Your task to perform on an android device: Go to ESPN.com Image 0: 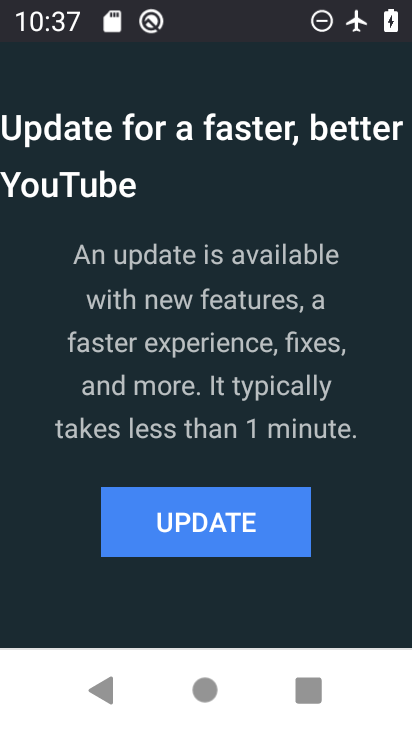
Step 0: press home button
Your task to perform on an android device: Go to ESPN.com Image 1: 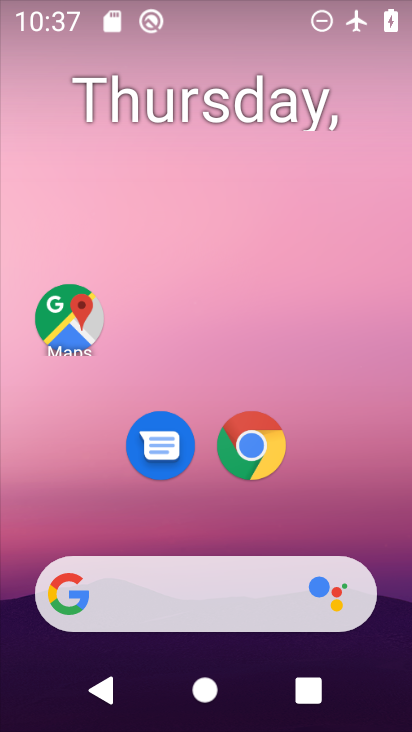
Step 1: click (235, 442)
Your task to perform on an android device: Go to ESPN.com Image 2: 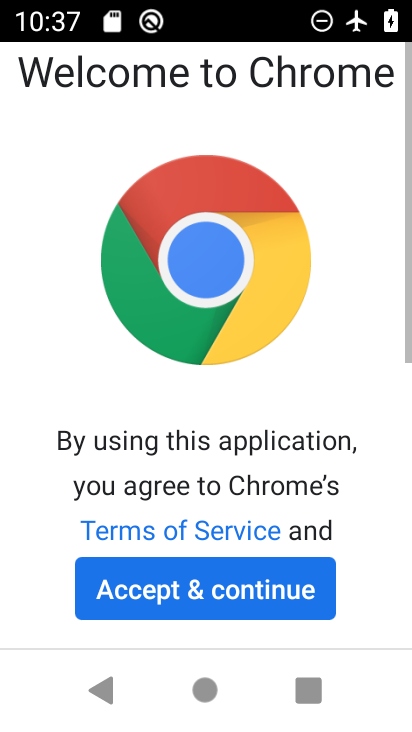
Step 2: click (237, 613)
Your task to perform on an android device: Go to ESPN.com Image 3: 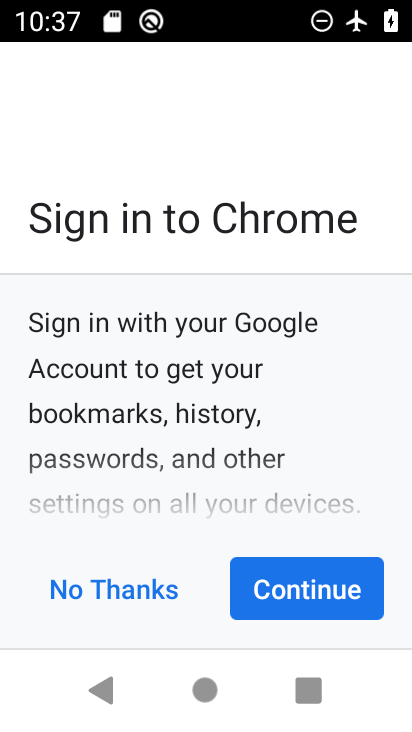
Step 3: click (237, 613)
Your task to perform on an android device: Go to ESPN.com Image 4: 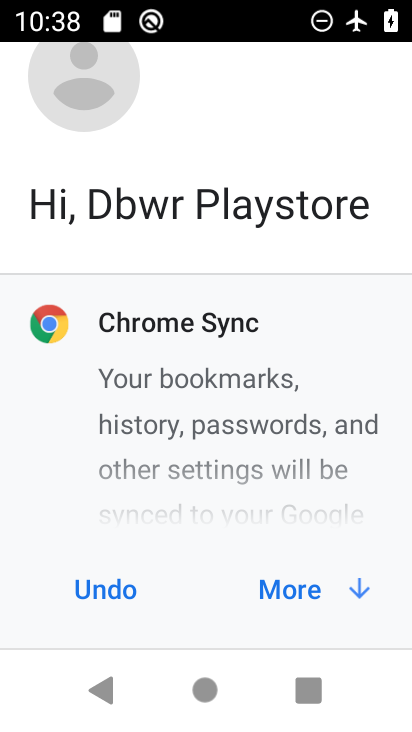
Step 4: click (269, 587)
Your task to perform on an android device: Go to ESPN.com Image 5: 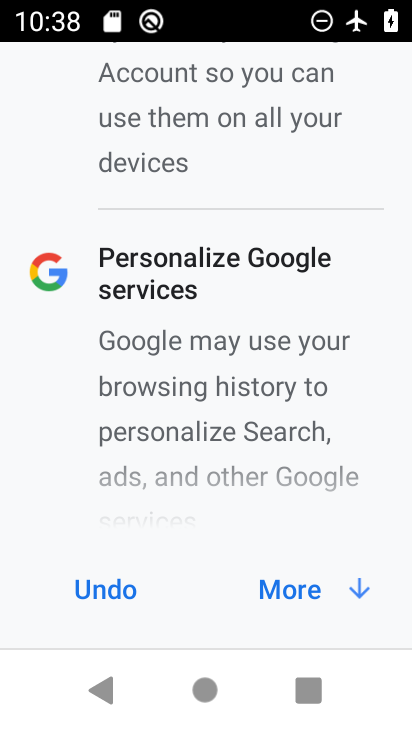
Step 5: click (271, 584)
Your task to perform on an android device: Go to ESPN.com Image 6: 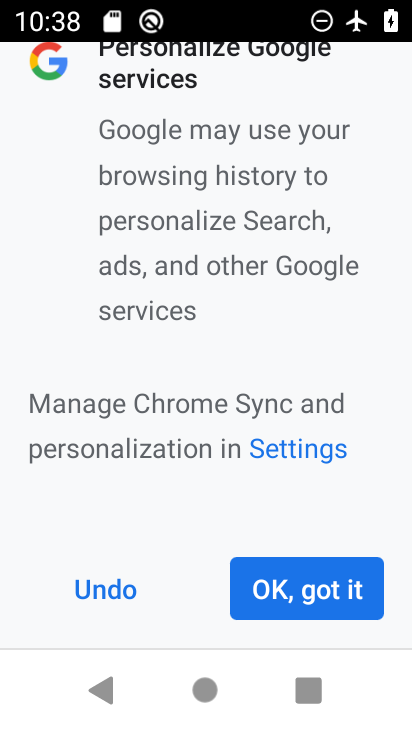
Step 6: click (271, 584)
Your task to perform on an android device: Go to ESPN.com Image 7: 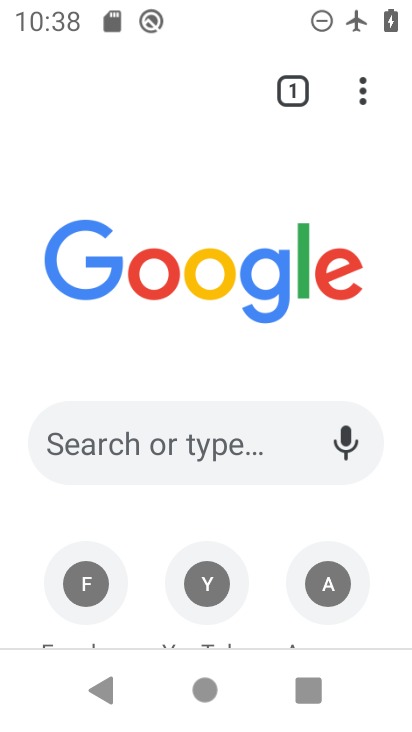
Step 7: drag from (283, 601) to (241, 263)
Your task to perform on an android device: Go to ESPN.com Image 8: 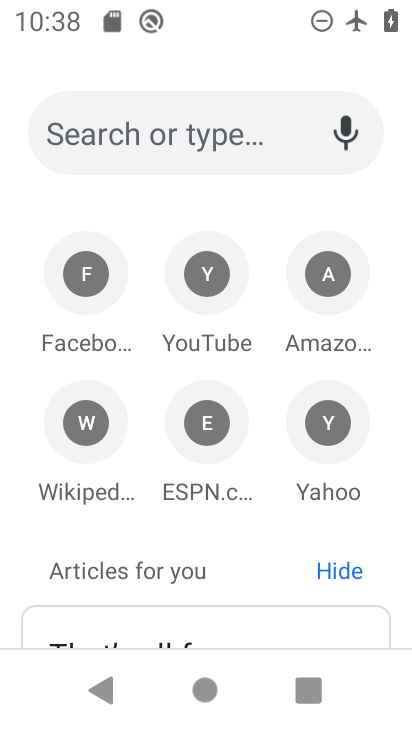
Step 8: click (185, 459)
Your task to perform on an android device: Go to ESPN.com Image 9: 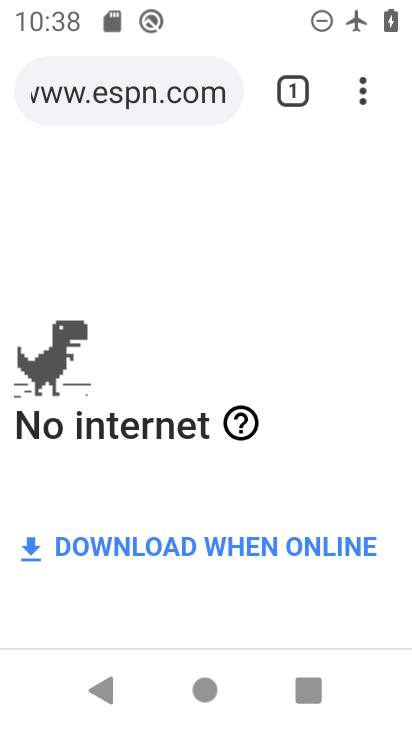
Step 9: task complete